Your task to perform on an android device: toggle airplane mode Image 0: 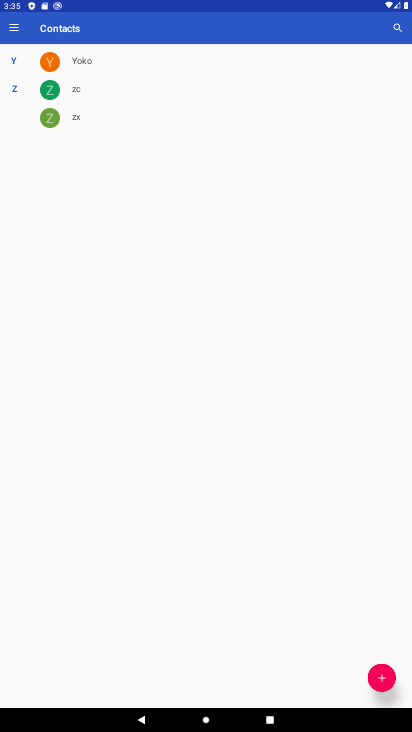
Step 0: drag from (290, 4) to (192, 557)
Your task to perform on an android device: toggle airplane mode Image 1: 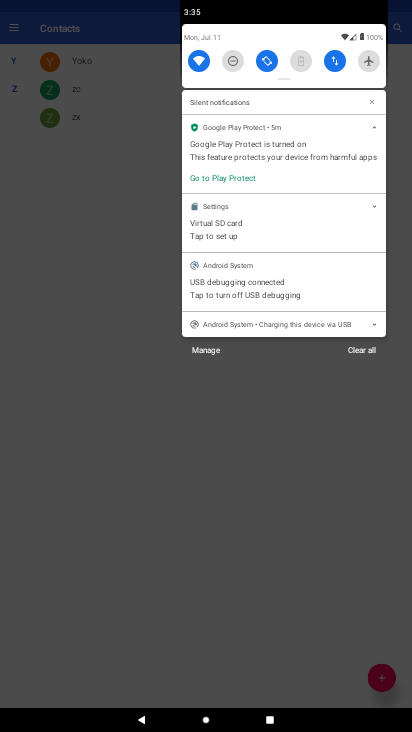
Step 1: click (370, 68)
Your task to perform on an android device: toggle airplane mode Image 2: 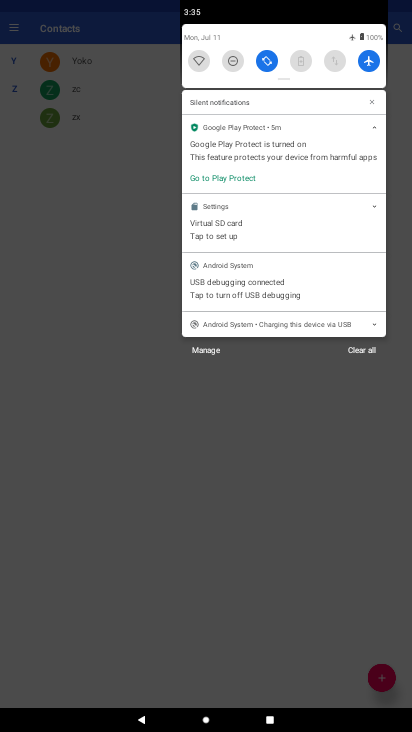
Step 2: task complete